Your task to perform on an android device: Open a new Chrome incognito window Image 0: 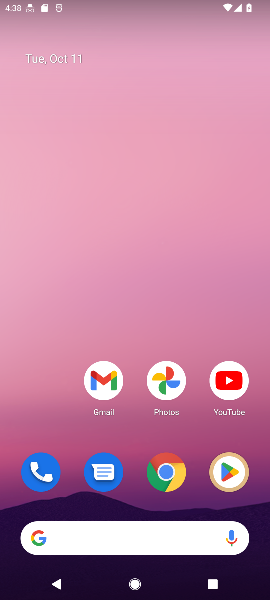
Step 0: click (169, 465)
Your task to perform on an android device: Open a new Chrome incognito window Image 1: 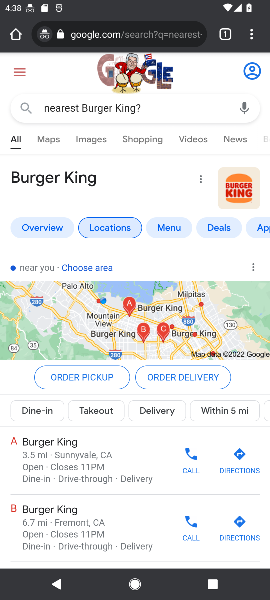
Step 1: click (254, 39)
Your task to perform on an android device: Open a new Chrome incognito window Image 2: 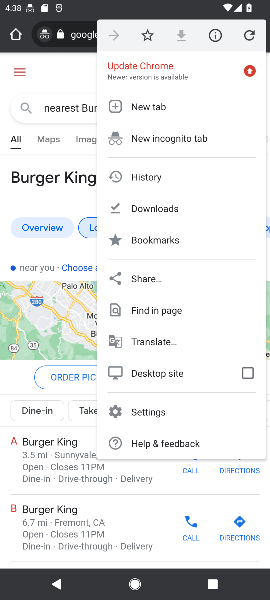
Step 2: click (119, 146)
Your task to perform on an android device: Open a new Chrome incognito window Image 3: 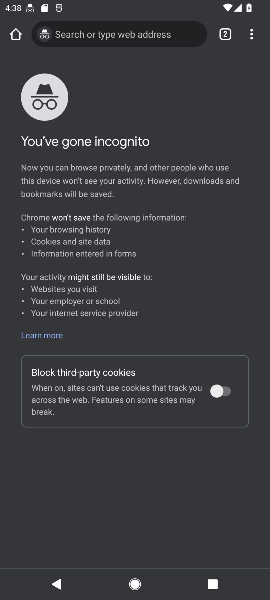
Step 3: task complete